Your task to perform on an android device: search for starred emails in the gmail app Image 0: 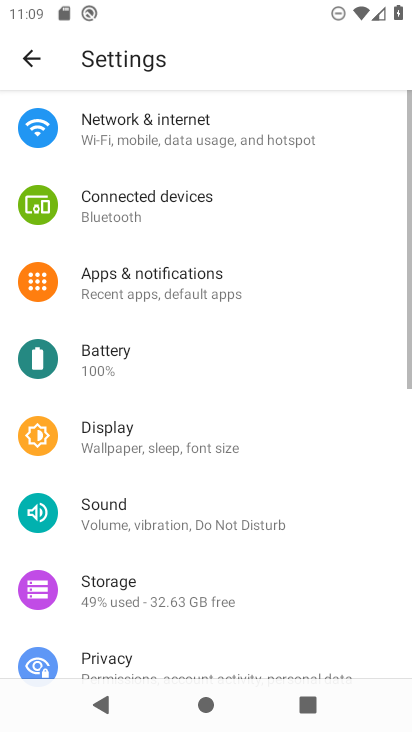
Step 0: press home button
Your task to perform on an android device: search for starred emails in the gmail app Image 1: 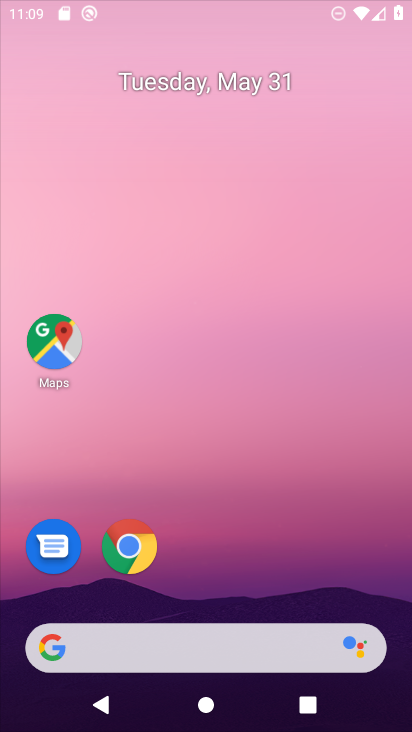
Step 1: drag from (251, 705) to (275, 19)
Your task to perform on an android device: search for starred emails in the gmail app Image 2: 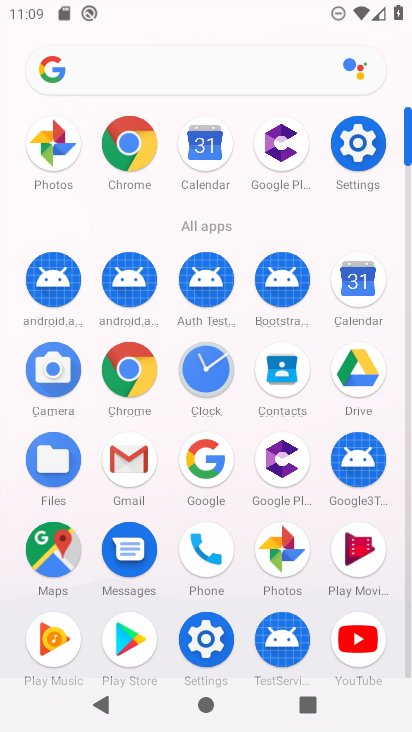
Step 2: click (143, 462)
Your task to perform on an android device: search for starred emails in the gmail app Image 3: 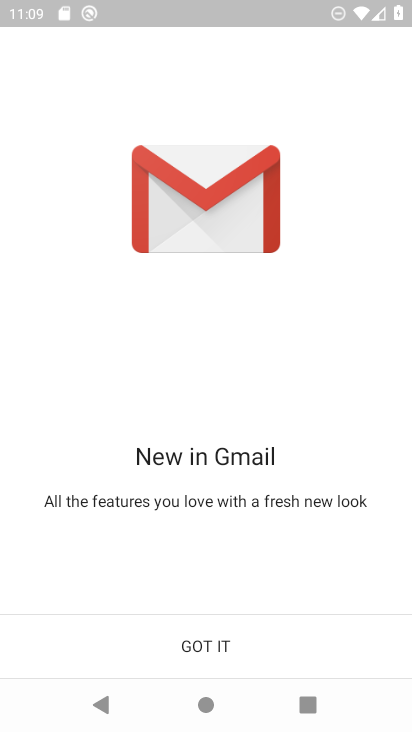
Step 3: click (233, 655)
Your task to perform on an android device: search for starred emails in the gmail app Image 4: 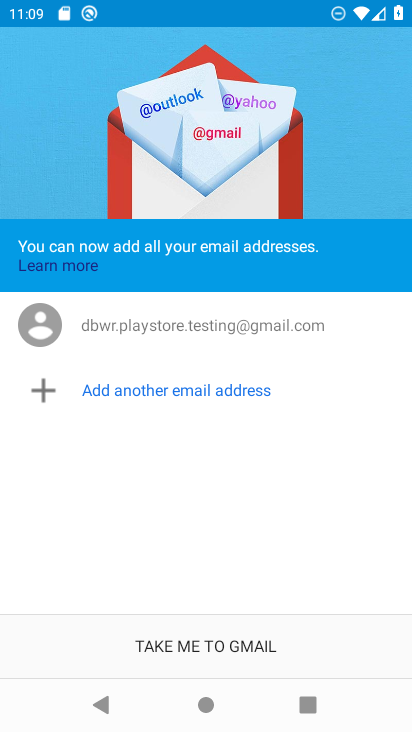
Step 4: click (210, 665)
Your task to perform on an android device: search for starred emails in the gmail app Image 5: 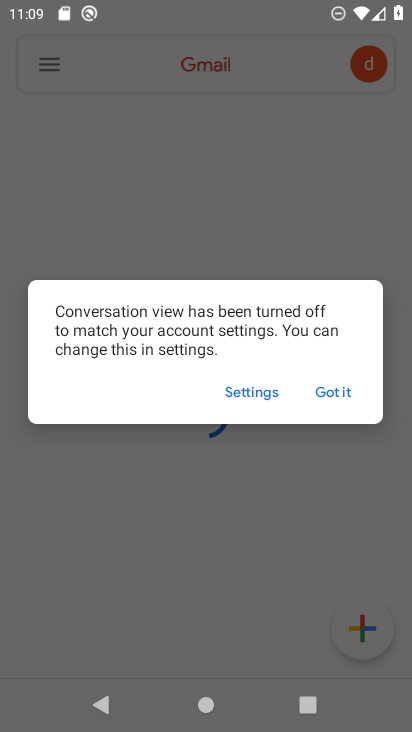
Step 5: click (351, 391)
Your task to perform on an android device: search for starred emails in the gmail app Image 6: 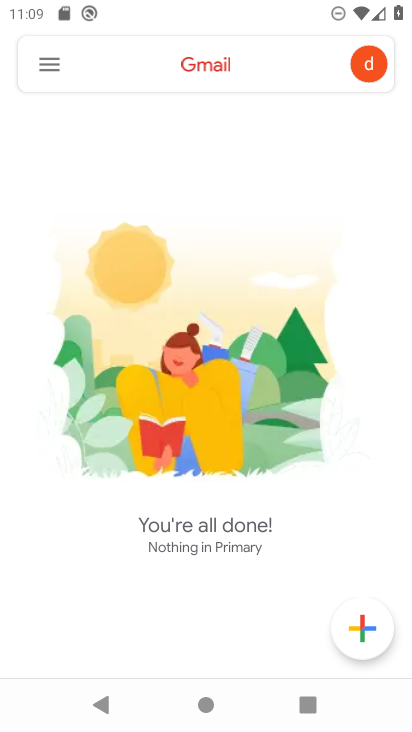
Step 6: click (32, 60)
Your task to perform on an android device: search for starred emails in the gmail app Image 7: 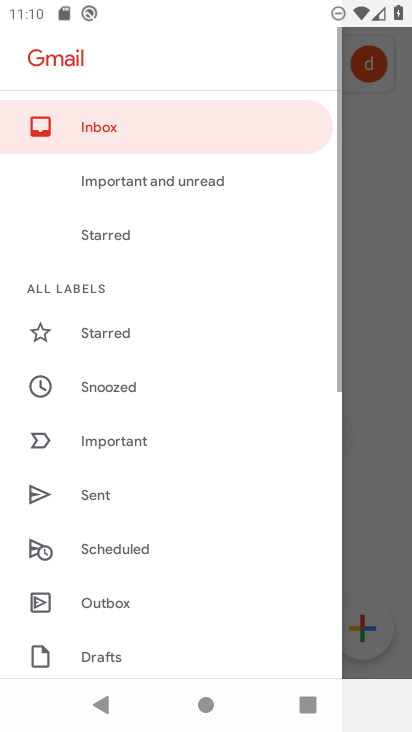
Step 7: click (127, 235)
Your task to perform on an android device: search for starred emails in the gmail app Image 8: 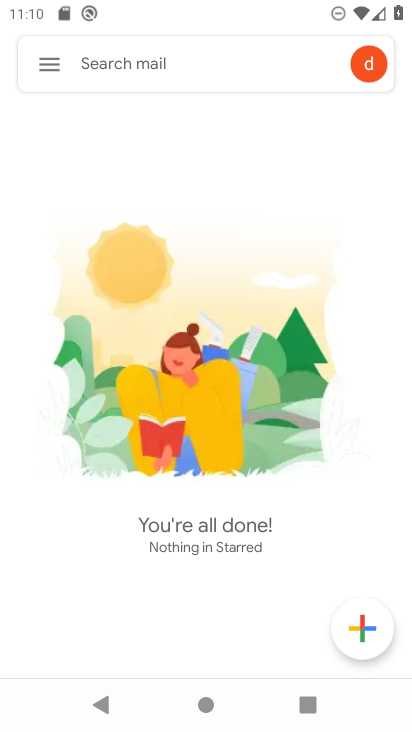
Step 8: task complete